Your task to perform on an android device: change text size in settings app Image 0: 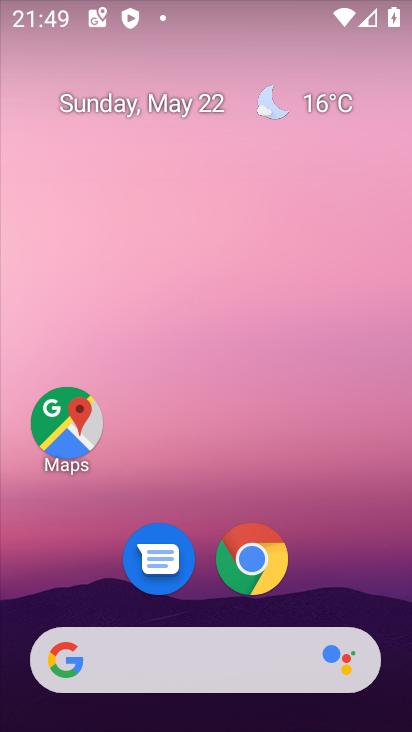
Step 0: drag from (255, 689) to (193, 292)
Your task to perform on an android device: change text size in settings app Image 1: 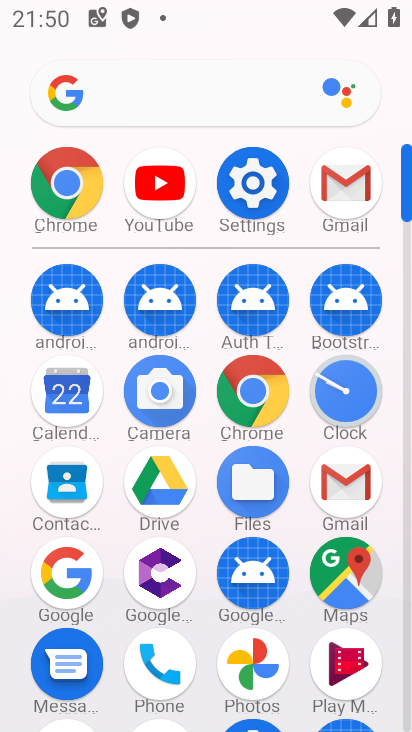
Step 1: click (228, 200)
Your task to perform on an android device: change text size in settings app Image 2: 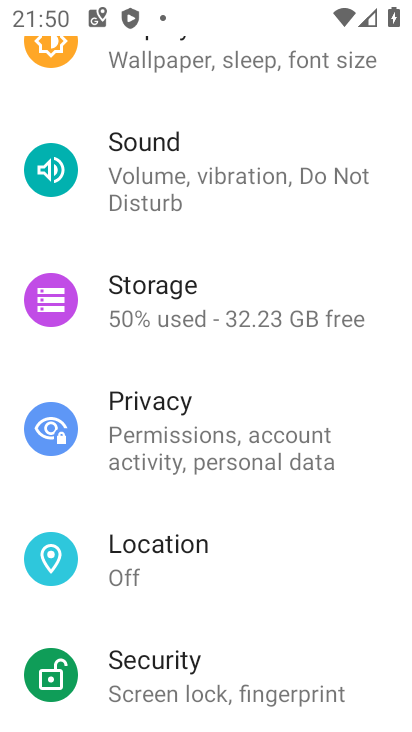
Step 2: drag from (207, 148) to (292, 541)
Your task to perform on an android device: change text size in settings app Image 3: 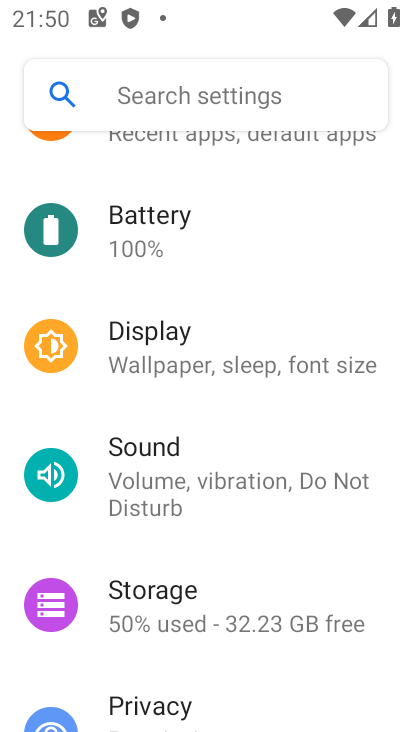
Step 3: click (201, 88)
Your task to perform on an android device: change text size in settings app Image 4: 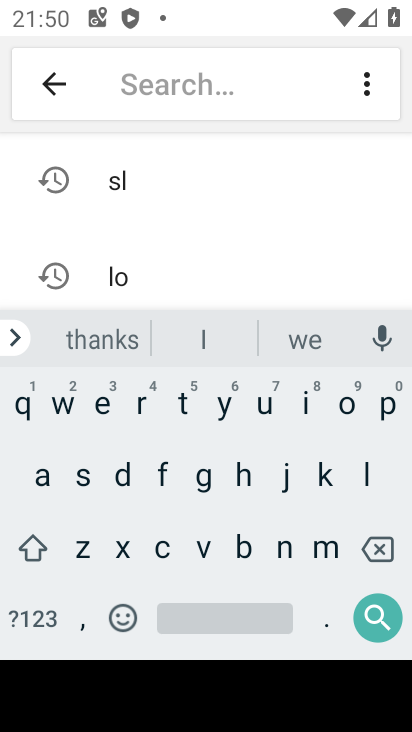
Step 4: click (79, 479)
Your task to perform on an android device: change text size in settings app Image 5: 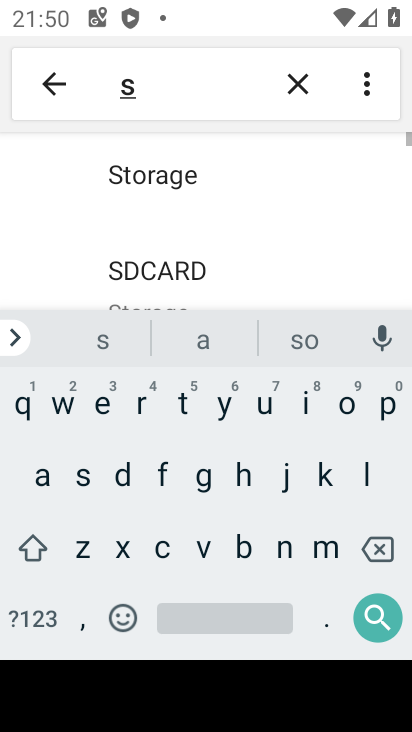
Step 5: click (305, 406)
Your task to perform on an android device: change text size in settings app Image 6: 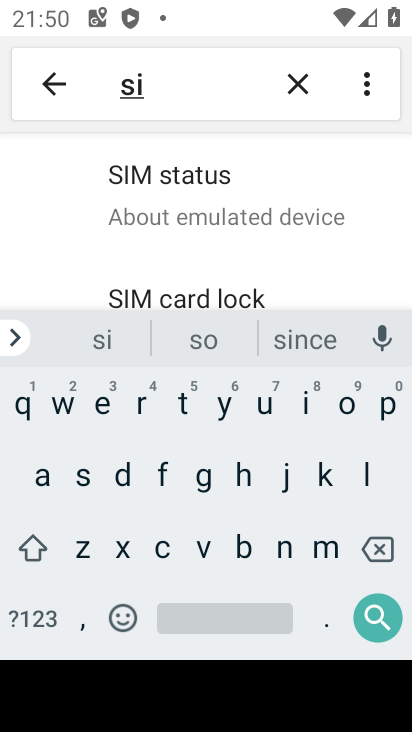
Step 6: click (76, 541)
Your task to perform on an android device: change text size in settings app Image 7: 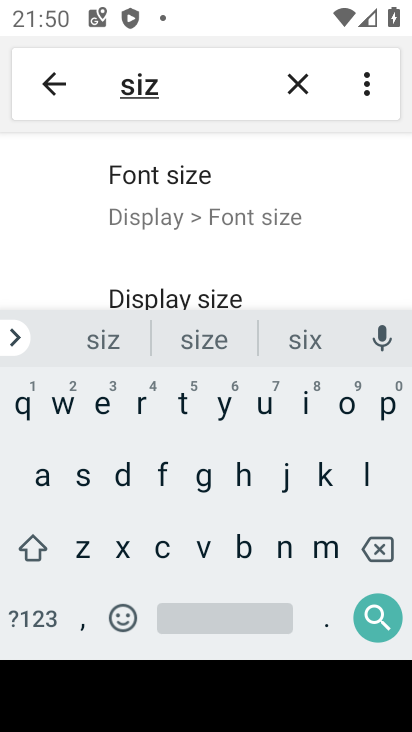
Step 7: click (196, 189)
Your task to perform on an android device: change text size in settings app Image 8: 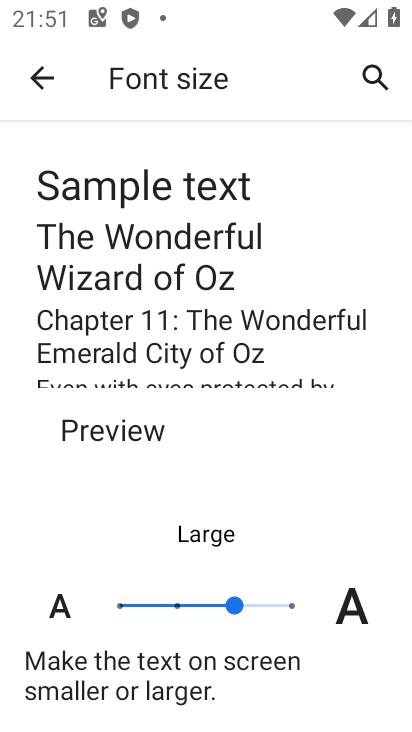
Step 8: click (127, 597)
Your task to perform on an android device: change text size in settings app Image 9: 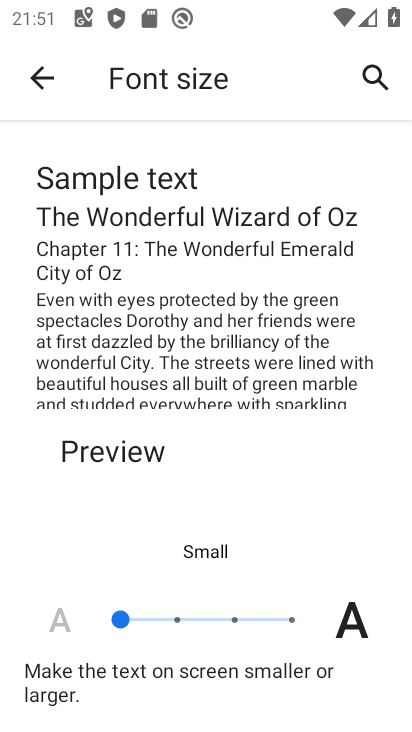
Step 9: task complete